Your task to perform on an android device: turn notification dots on Image 0: 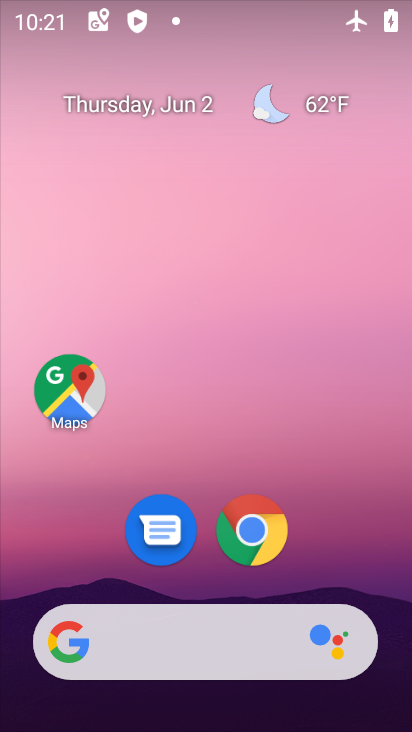
Step 0: drag from (86, 583) to (189, 79)
Your task to perform on an android device: turn notification dots on Image 1: 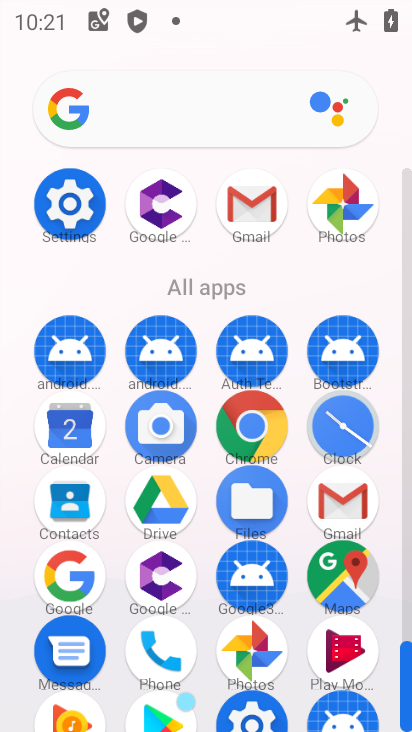
Step 1: drag from (172, 549) to (279, 159)
Your task to perform on an android device: turn notification dots on Image 2: 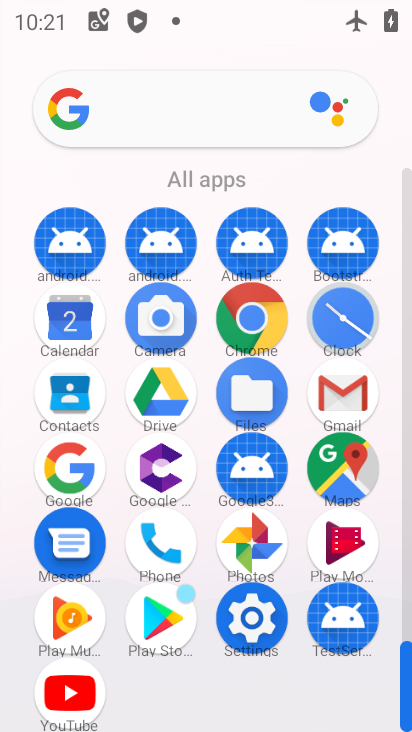
Step 2: click (237, 608)
Your task to perform on an android device: turn notification dots on Image 3: 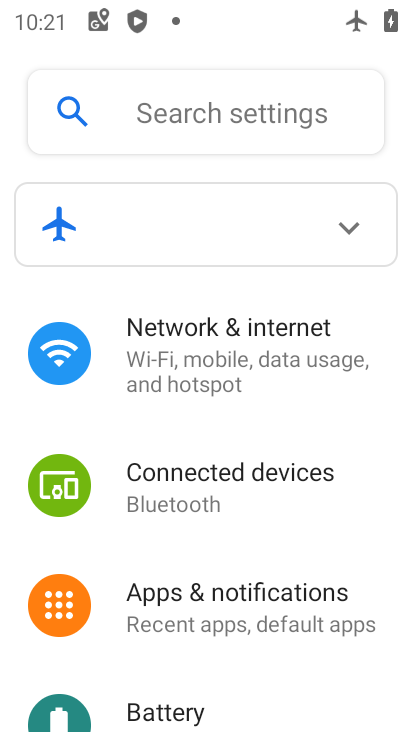
Step 3: click (242, 632)
Your task to perform on an android device: turn notification dots on Image 4: 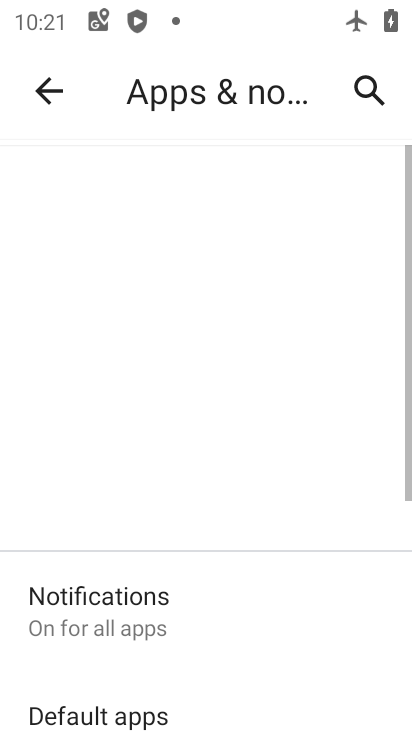
Step 4: click (196, 612)
Your task to perform on an android device: turn notification dots on Image 5: 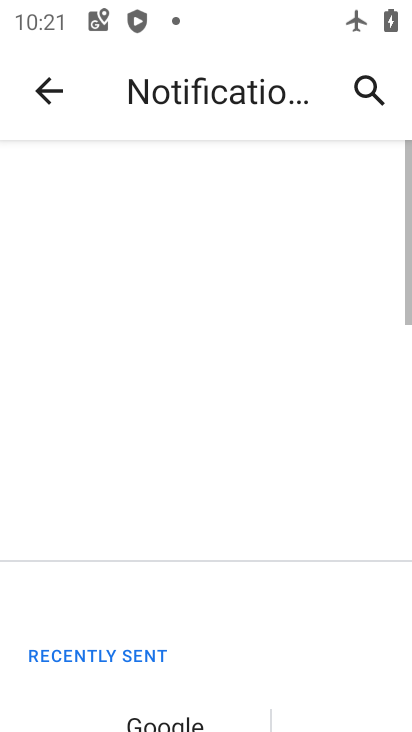
Step 5: drag from (197, 637) to (333, 107)
Your task to perform on an android device: turn notification dots on Image 6: 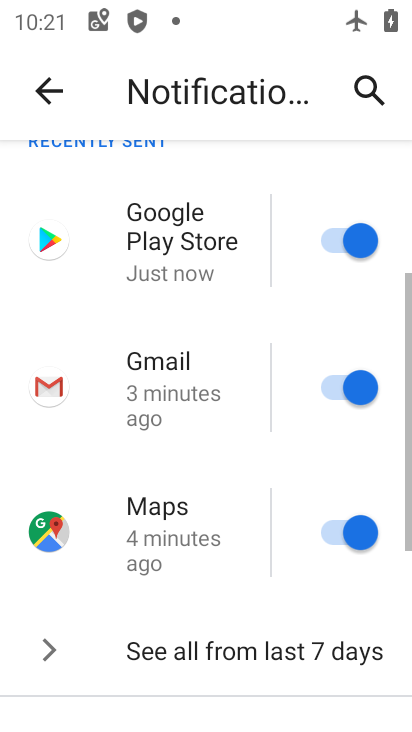
Step 6: drag from (179, 700) to (293, 165)
Your task to perform on an android device: turn notification dots on Image 7: 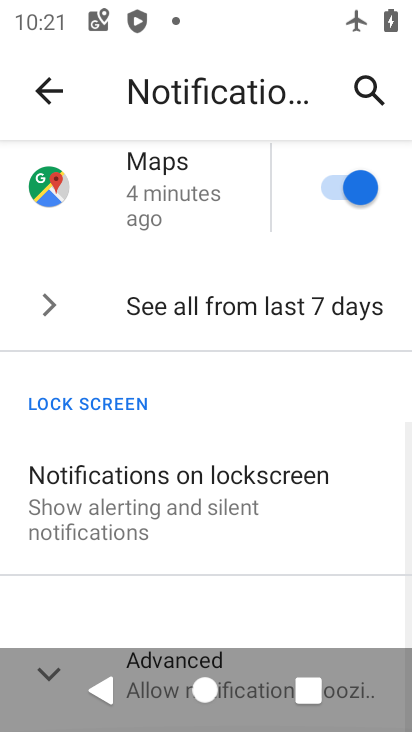
Step 7: click (174, 642)
Your task to perform on an android device: turn notification dots on Image 8: 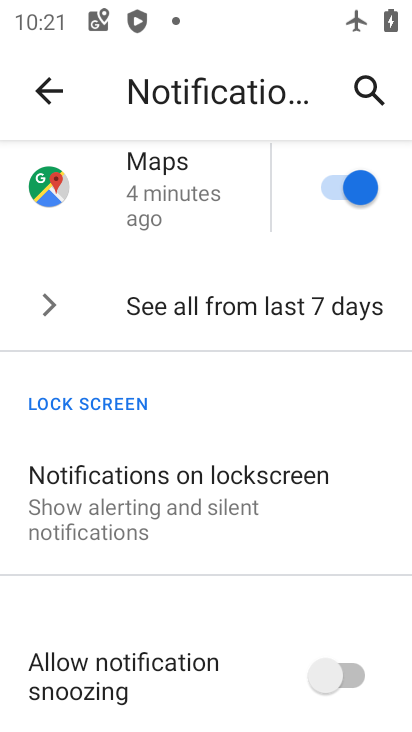
Step 8: task complete